Your task to perform on an android device: When is my next meeting? Image 0: 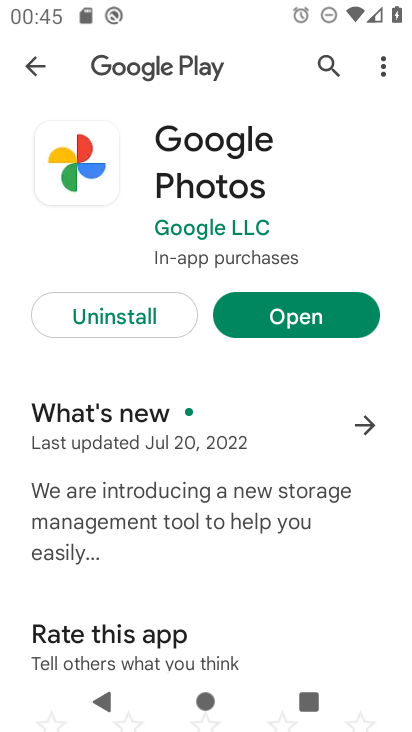
Step 0: press home button
Your task to perform on an android device: When is my next meeting? Image 1: 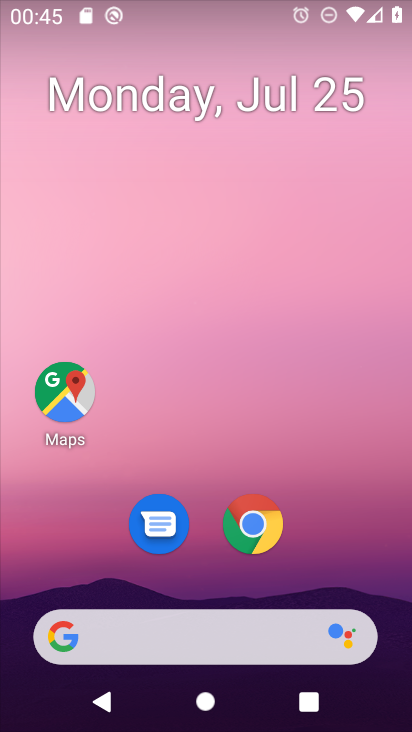
Step 1: drag from (163, 637) to (334, 128)
Your task to perform on an android device: When is my next meeting? Image 2: 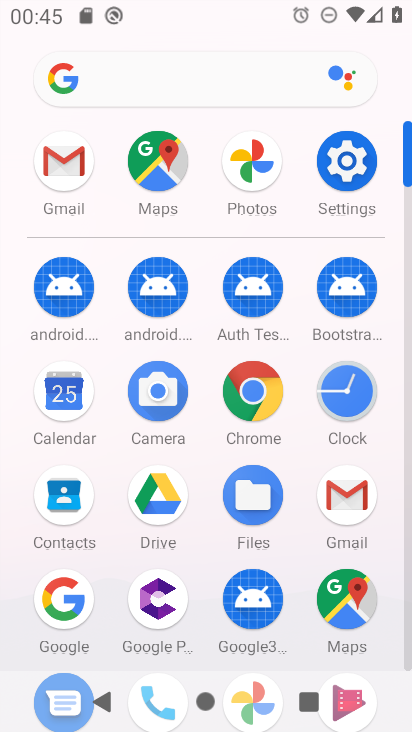
Step 2: click (47, 392)
Your task to perform on an android device: When is my next meeting? Image 3: 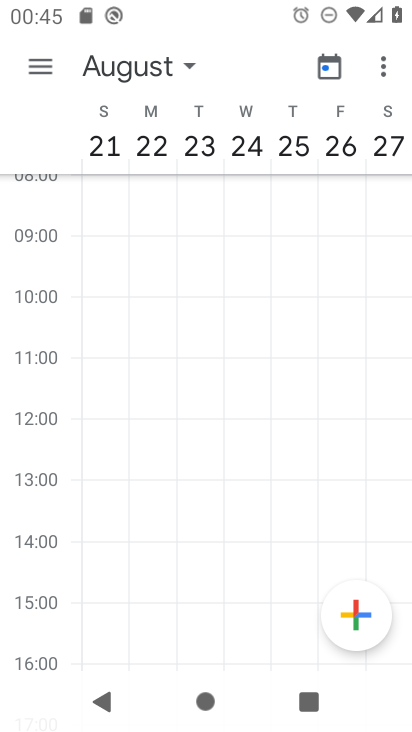
Step 3: click (127, 65)
Your task to perform on an android device: When is my next meeting? Image 4: 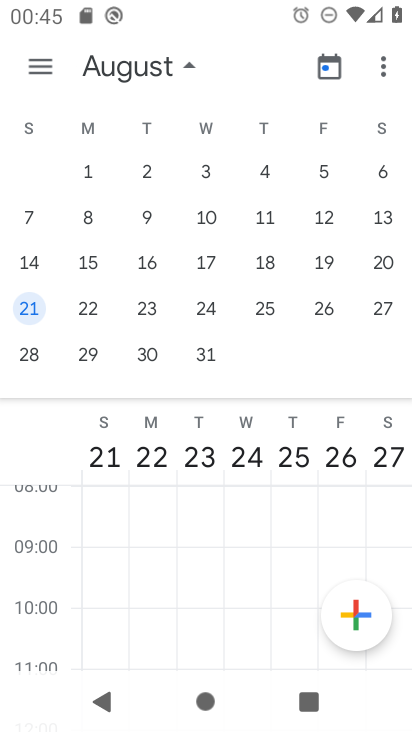
Step 4: drag from (82, 258) to (402, 256)
Your task to perform on an android device: When is my next meeting? Image 5: 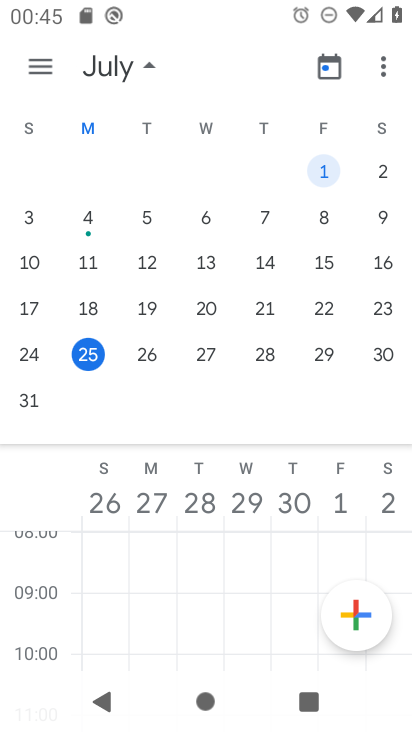
Step 5: click (85, 356)
Your task to perform on an android device: When is my next meeting? Image 6: 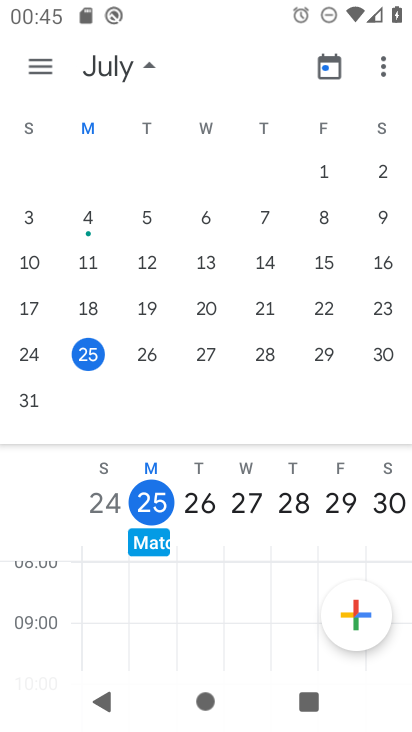
Step 6: click (35, 60)
Your task to perform on an android device: When is my next meeting? Image 7: 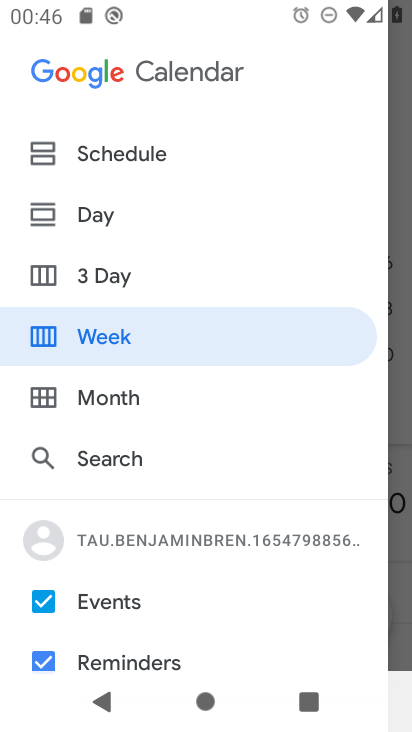
Step 7: click (125, 156)
Your task to perform on an android device: When is my next meeting? Image 8: 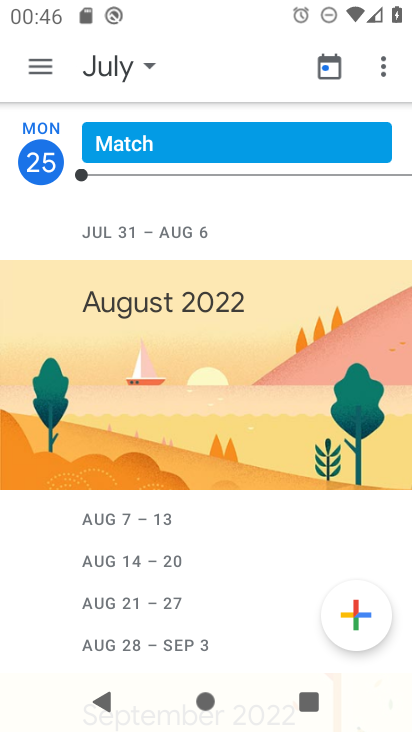
Step 8: task complete